Your task to perform on an android device: set the timer Image 0: 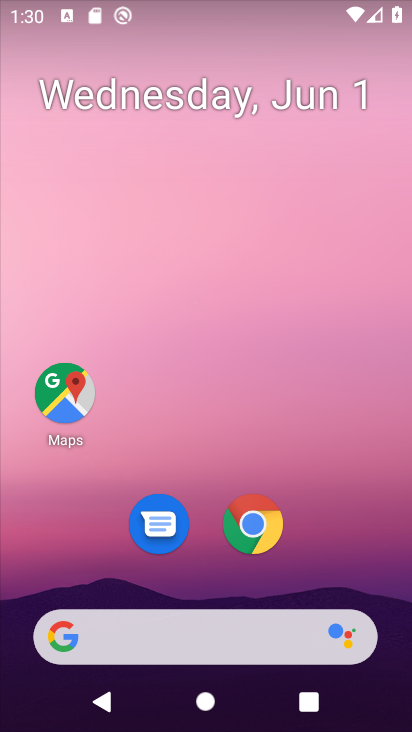
Step 0: drag from (355, 554) to (326, 62)
Your task to perform on an android device: set the timer Image 1: 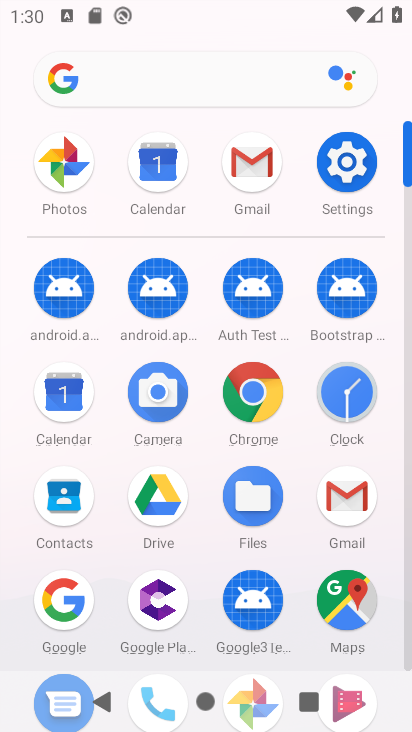
Step 1: click (344, 386)
Your task to perform on an android device: set the timer Image 2: 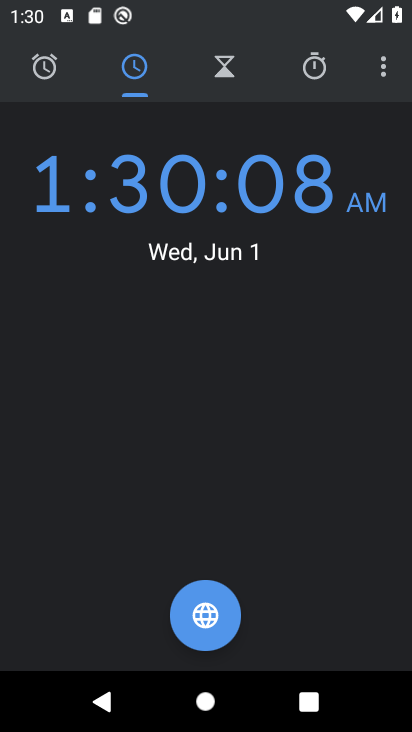
Step 2: click (235, 73)
Your task to perform on an android device: set the timer Image 3: 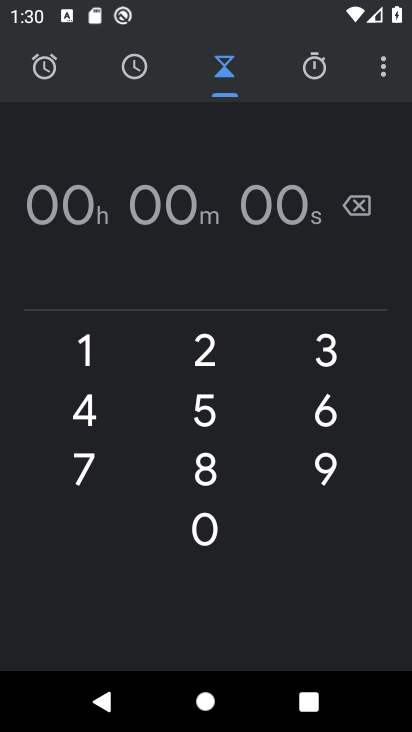
Step 3: click (84, 350)
Your task to perform on an android device: set the timer Image 4: 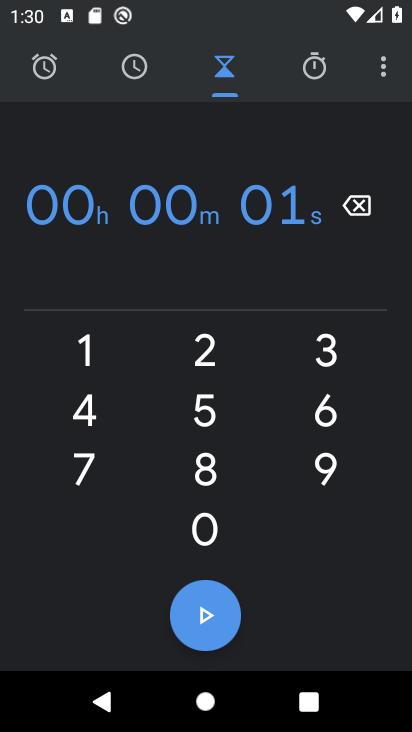
Step 4: click (198, 403)
Your task to perform on an android device: set the timer Image 5: 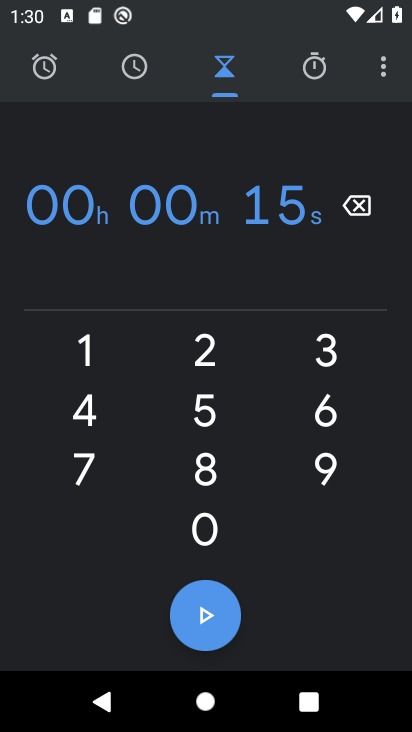
Step 5: task complete